Your task to perform on an android device: Go to Yahoo.com Image 0: 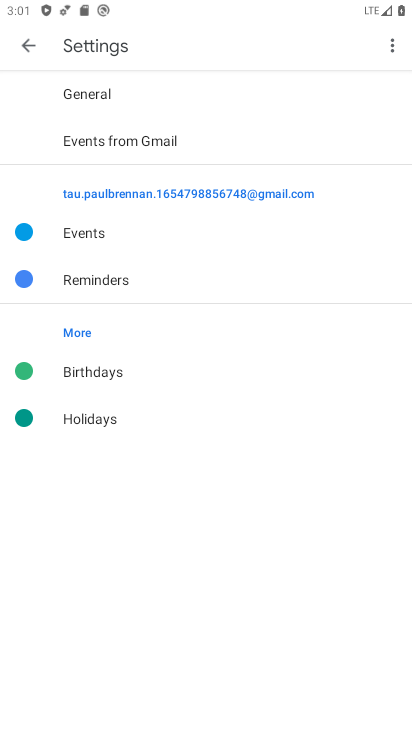
Step 0: press home button
Your task to perform on an android device: Go to Yahoo.com Image 1: 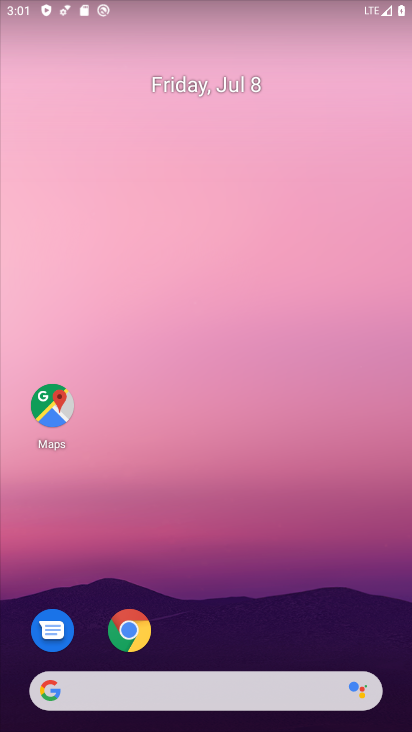
Step 1: click (213, 686)
Your task to perform on an android device: Go to Yahoo.com Image 2: 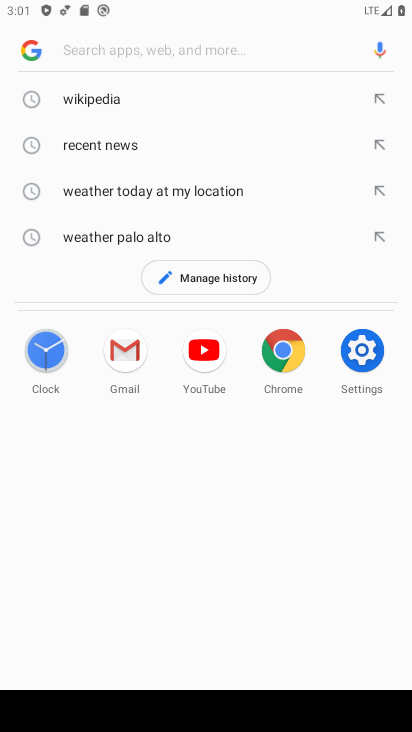
Step 2: type "yahoo.com"
Your task to perform on an android device: Go to Yahoo.com Image 3: 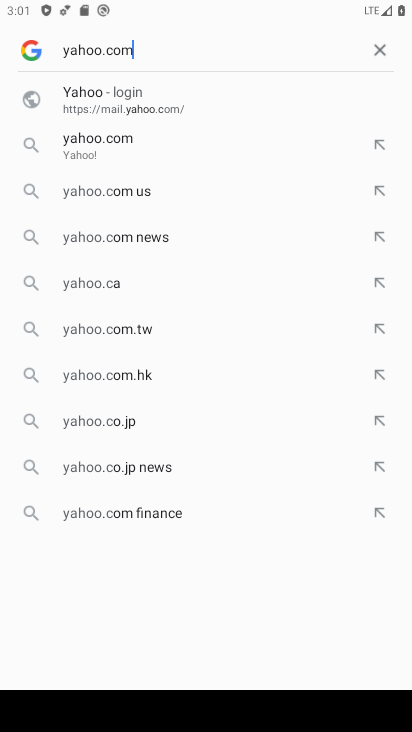
Step 3: press enter
Your task to perform on an android device: Go to Yahoo.com Image 4: 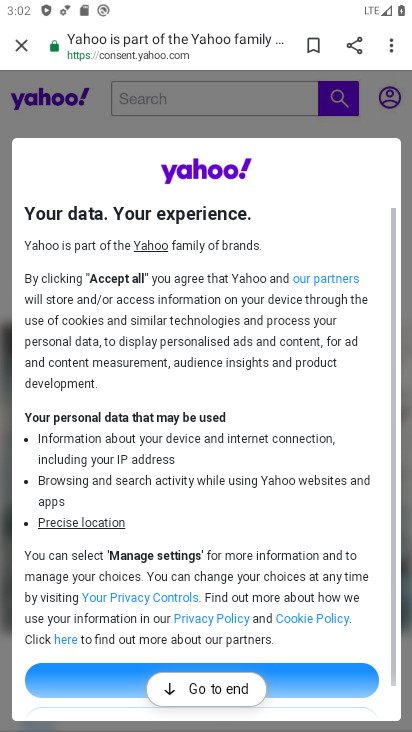
Step 4: click (236, 117)
Your task to perform on an android device: Go to Yahoo.com Image 5: 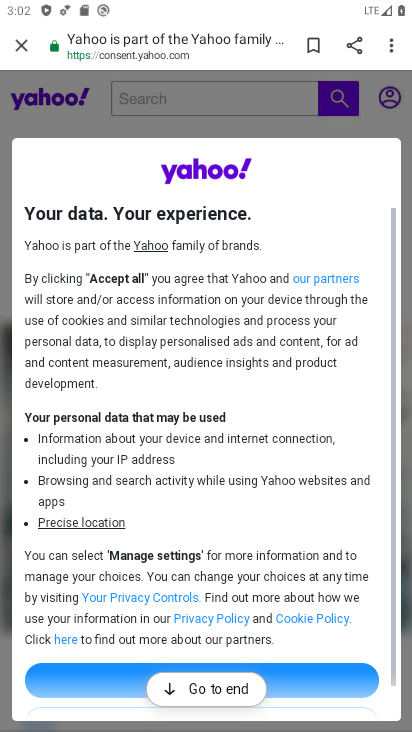
Step 5: click (225, 684)
Your task to perform on an android device: Go to Yahoo.com Image 6: 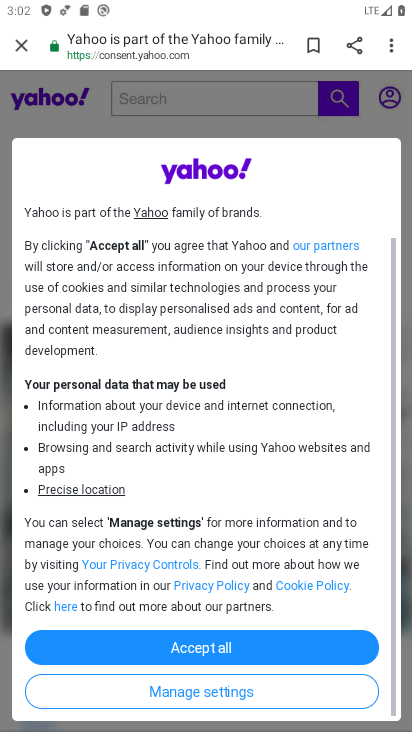
Step 6: task complete